Your task to perform on an android device: Open calendar and show me the second week of next month Image 0: 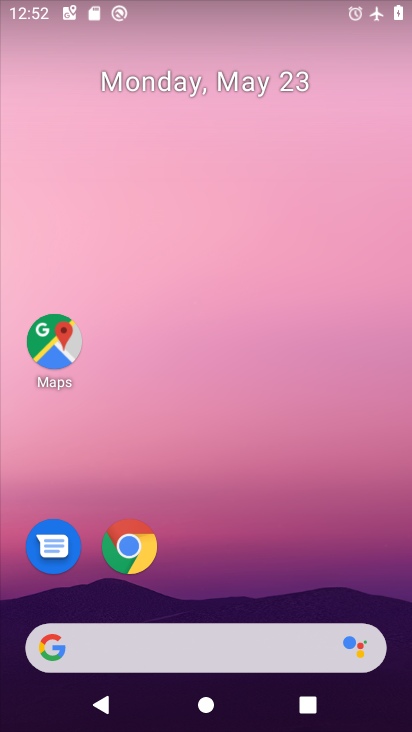
Step 0: drag from (226, 592) to (176, 89)
Your task to perform on an android device: Open calendar and show me the second week of next month Image 1: 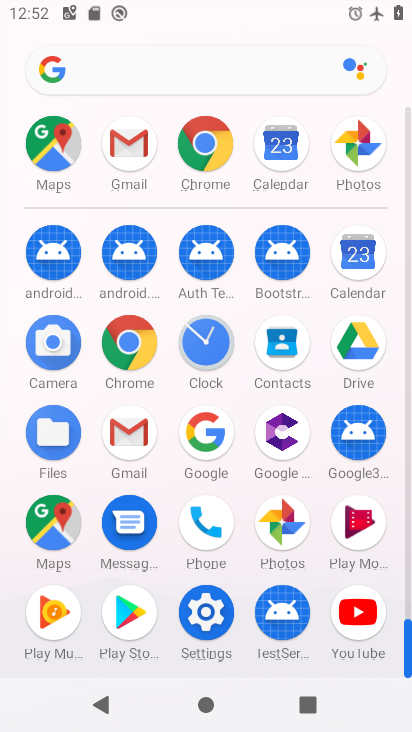
Step 1: click (347, 262)
Your task to perform on an android device: Open calendar and show me the second week of next month Image 2: 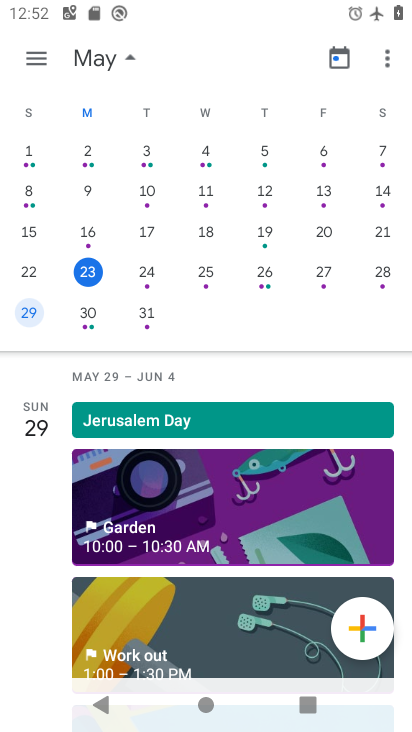
Step 2: drag from (369, 261) to (12, 253)
Your task to perform on an android device: Open calendar and show me the second week of next month Image 3: 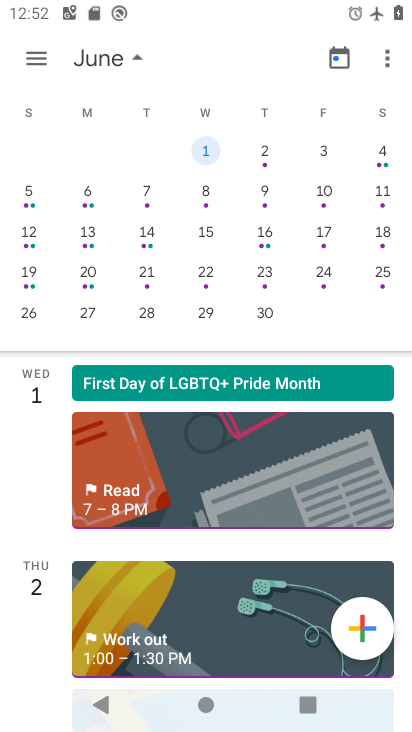
Step 3: click (32, 240)
Your task to perform on an android device: Open calendar and show me the second week of next month Image 4: 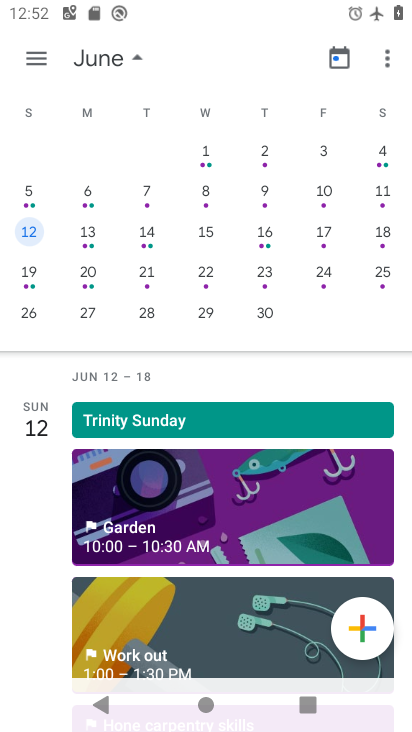
Step 4: task complete